Your task to perform on an android device: empty trash in the gmail app Image 0: 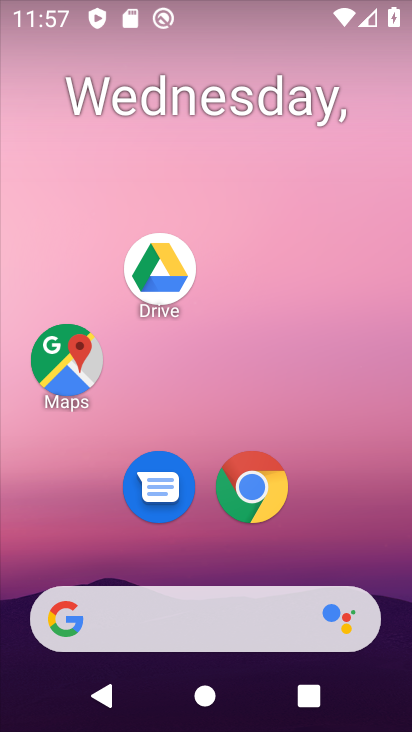
Step 0: drag from (207, 504) to (260, 45)
Your task to perform on an android device: empty trash in the gmail app Image 1: 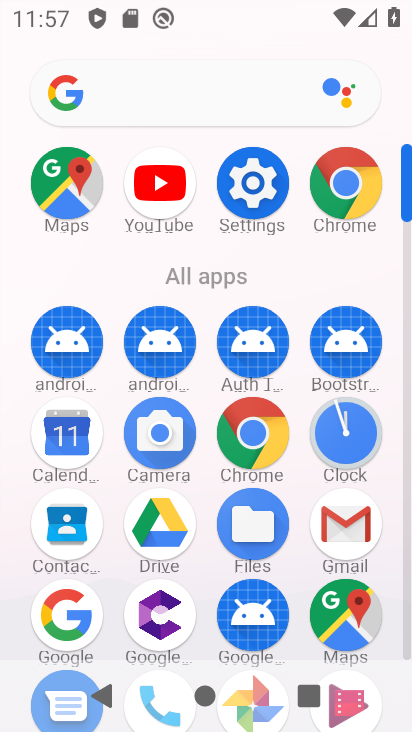
Step 1: click (318, 518)
Your task to perform on an android device: empty trash in the gmail app Image 2: 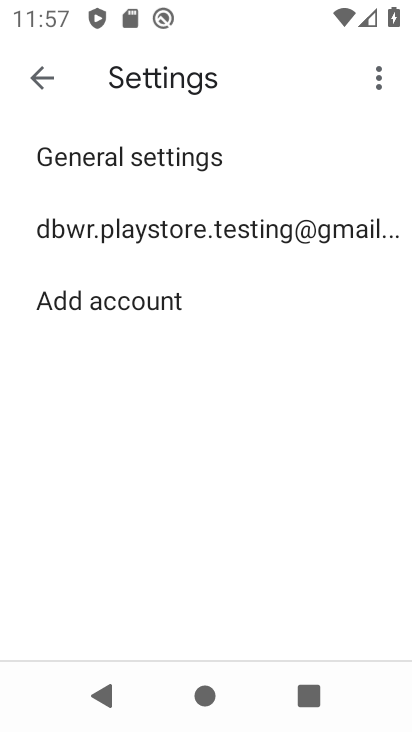
Step 2: click (36, 84)
Your task to perform on an android device: empty trash in the gmail app Image 3: 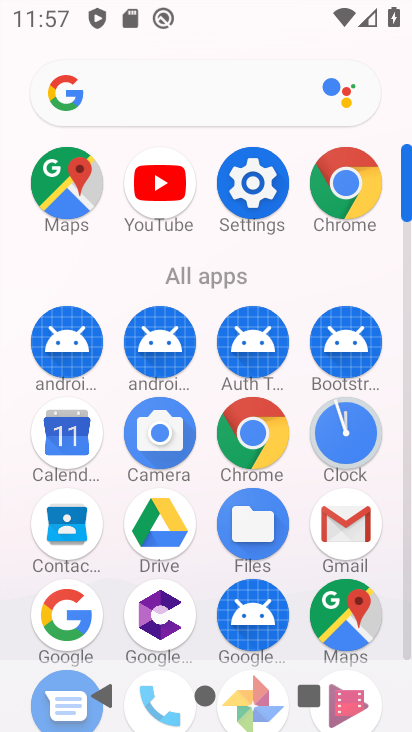
Step 3: click (339, 531)
Your task to perform on an android device: empty trash in the gmail app Image 4: 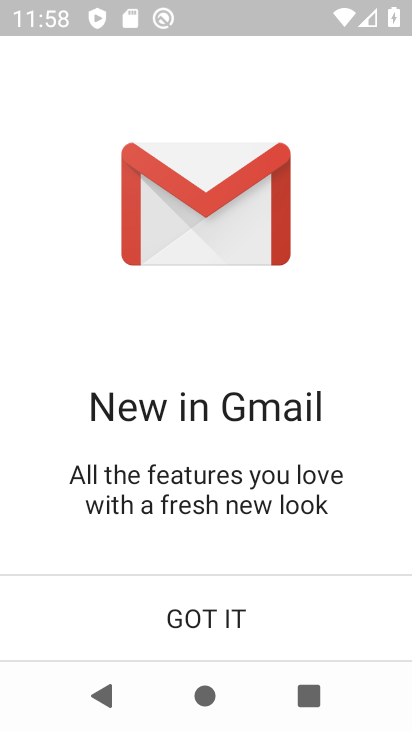
Step 4: click (224, 609)
Your task to perform on an android device: empty trash in the gmail app Image 5: 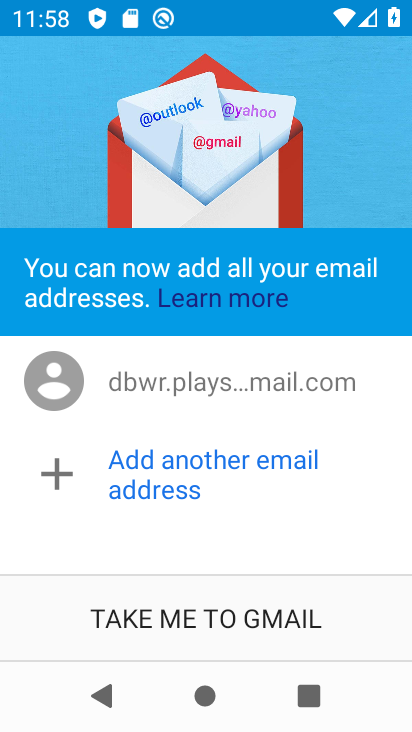
Step 5: click (224, 609)
Your task to perform on an android device: empty trash in the gmail app Image 6: 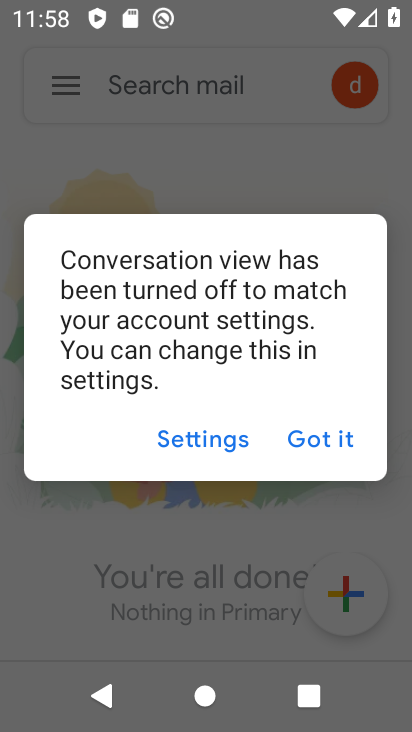
Step 6: click (314, 447)
Your task to perform on an android device: empty trash in the gmail app Image 7: 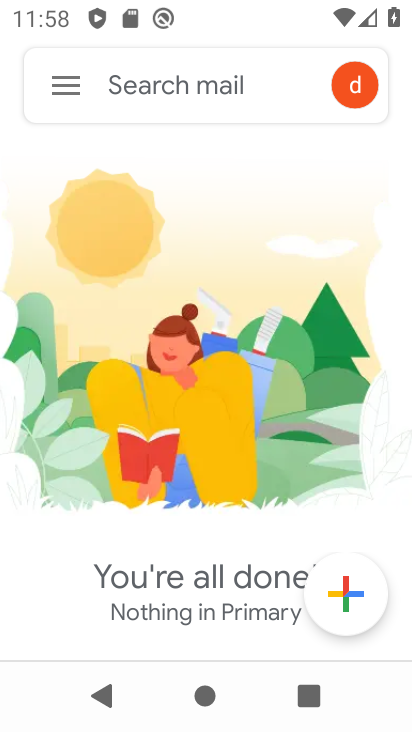
Step 7: click (65, 92)
Your task to perform on an android device: empty trash in the gmail app Image 8: 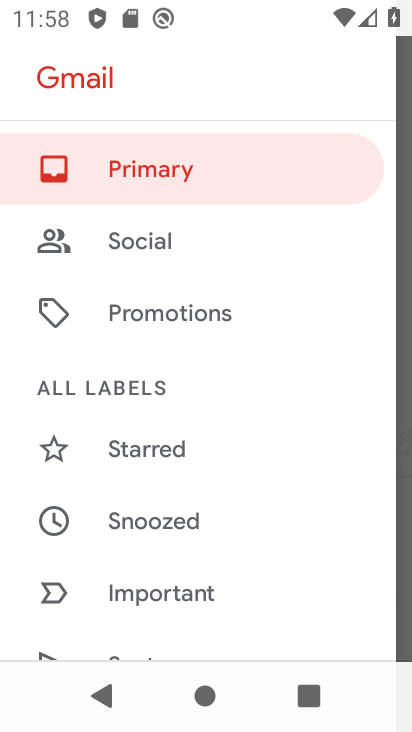
Step 8: drag from (130, 485) to (211, 92)
Your task to perform on an android device: empty trash in the gmail app Image 9: 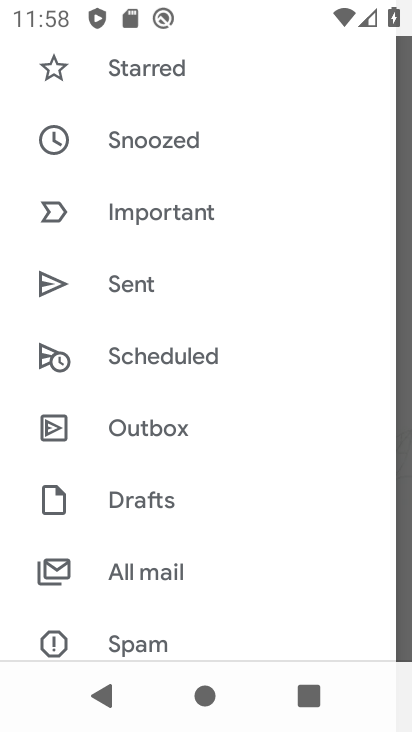
Step 9: drag from (170, 529) to (205, 295)
Your task to perform on an android device: empty trash in the gmail app Image 10: 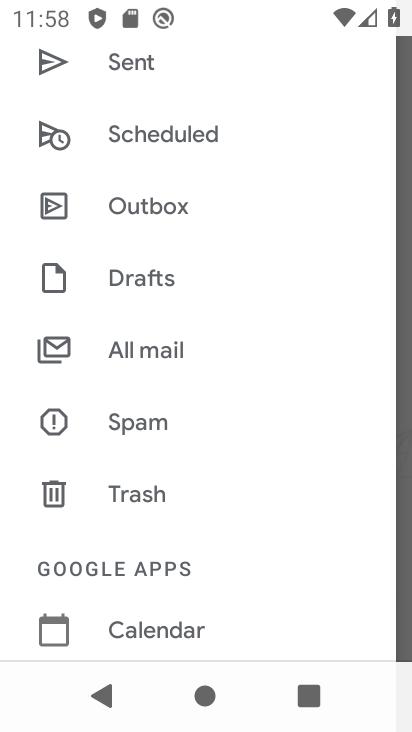
Step 10: click (128, 498)
Your task to perform on an android device: empty trash in the gmail app Image 11: 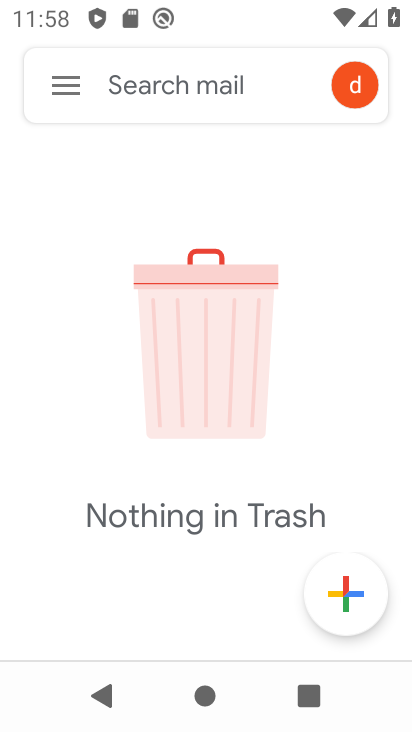
Step 11: task complete